Your task to perform on an android device: all mails in gmail Image 0: 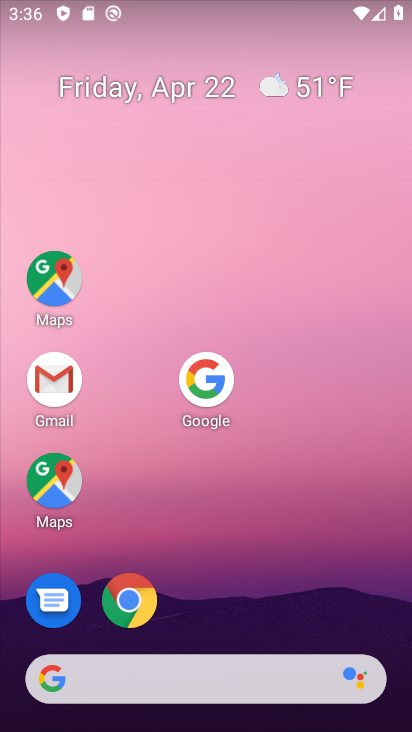
Step 0: drag from (304, 669) to (194, 270)
Your task to perform on an android device: all mails in gmail Image 1: 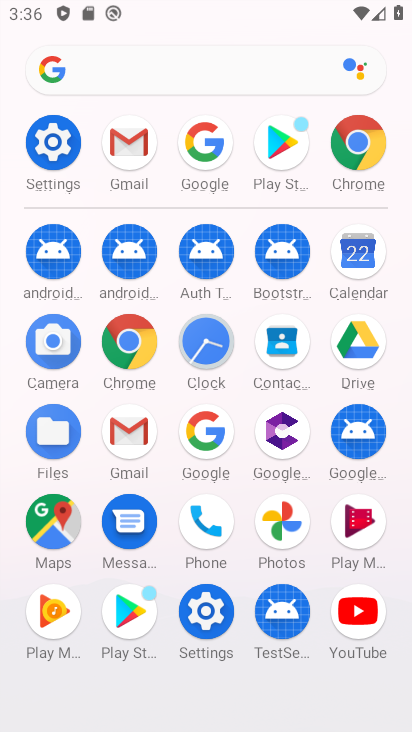
Step 1: click (128, 447)
Your task to perform on an android device: all mails in gmail Image 2: 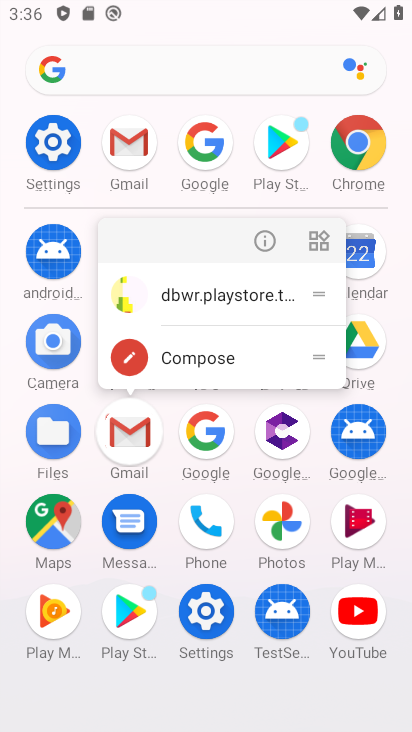
Step 2: click (128, 447)
Your task to perform on an android device: all mails in gmail Image 3: 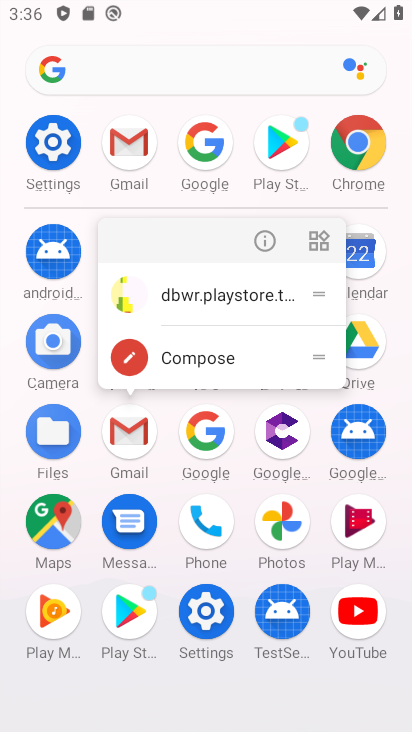
Step 3: click (123, 425)
Your task to perform on an android device: all mails in gmail Image 4: 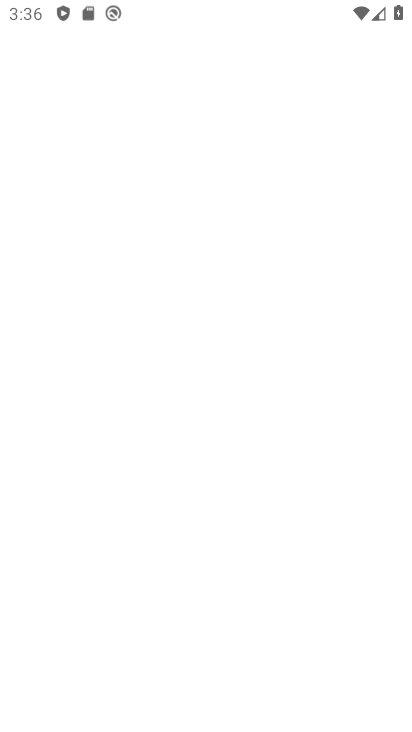
Step 4: click (123, 423)
Your task to perform on an android device: all mails in gmail Image 5: 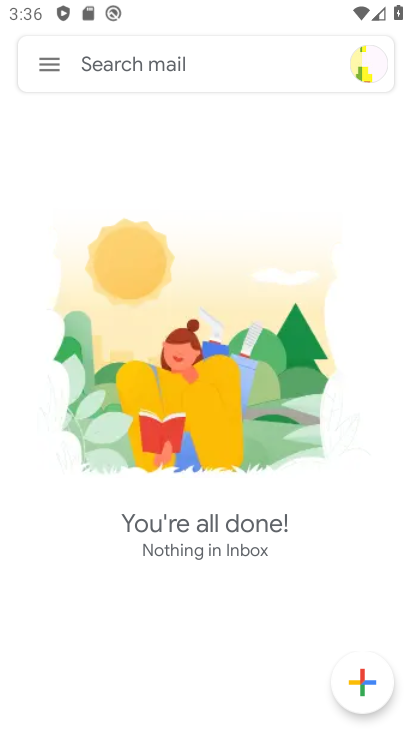
Step 5: drag from (46, 65) to (35, 233)
Your task to perform on an android device: all mails in gmail Image 6: 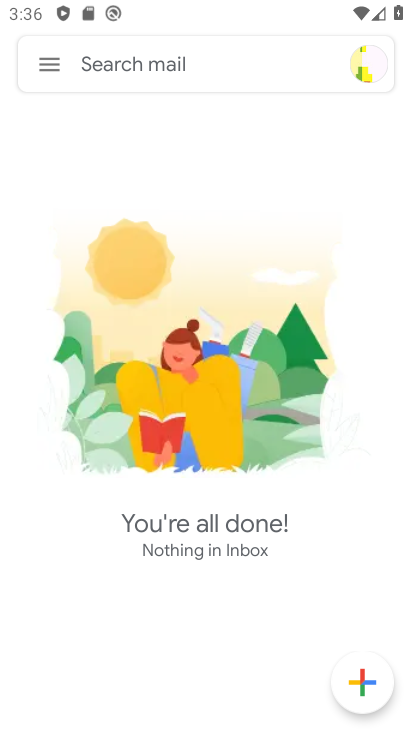
Step 6: drag from (49, 63) to (49, 248)
Your task to perform on an android device: all mails in gmail Image 7: 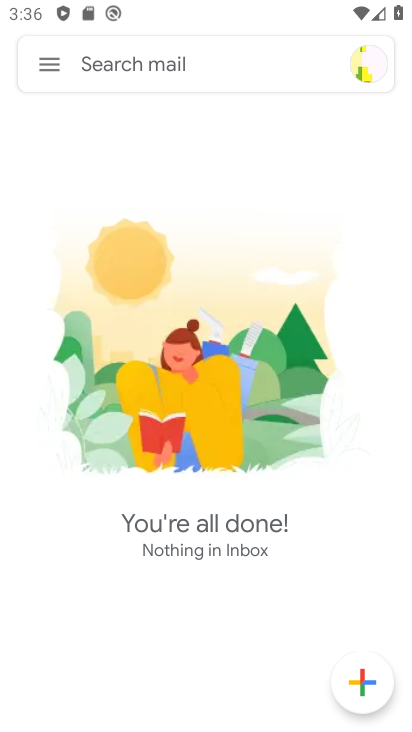
Step 7: click (46, 58)
Your task to perform on an android device: all mails in gmail Image 8: 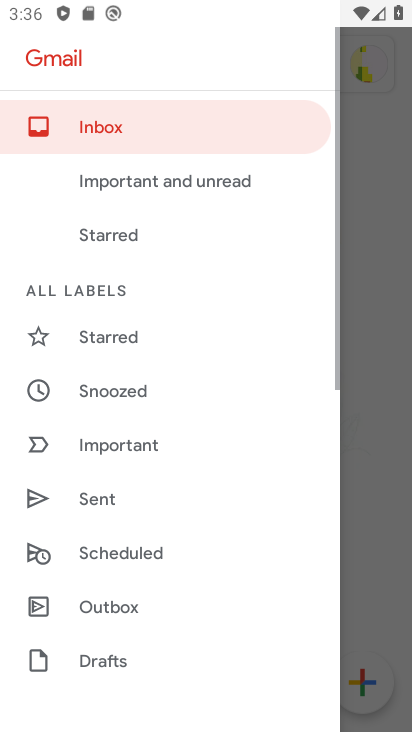
Step 8: click (46, 61)
Your task to perform on an android device: all mails in gmail Image 9: 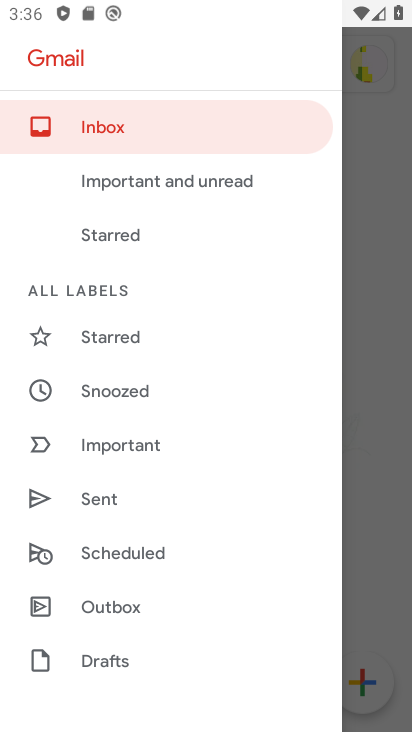
Step 9: drag from (156, 544) to (94, 303)
Your task to perform on an android device: all mails in gmail Image 10: 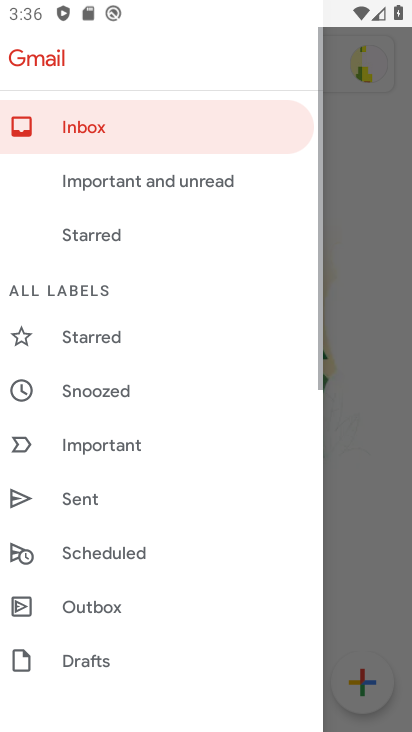
Step 10: drag from (138, 530) to (153, 298)
Your task to perform on an android device: all mails in gmail Image 11: 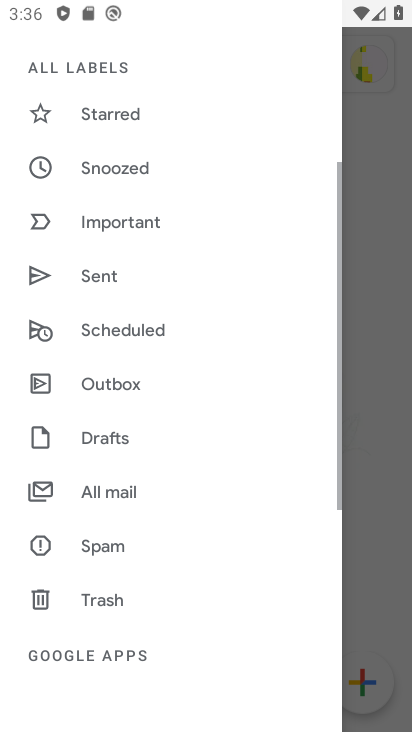
Step 11: drag from (114, 593) to (74, 296)
Your task to perform on an android device: all mails in gmail Image 12: 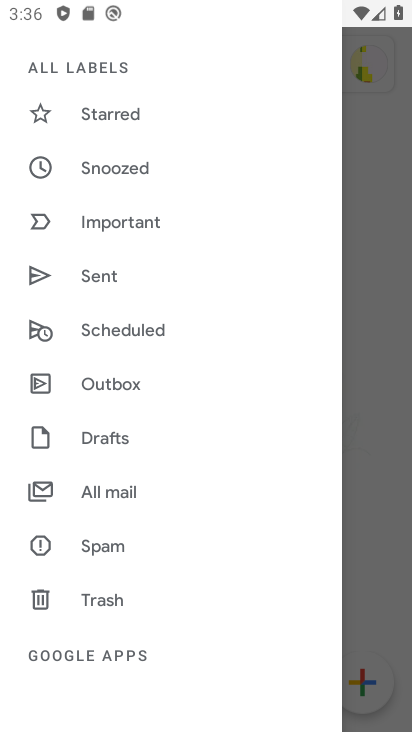
Step 12: click (100, 487)
Your task to perform on an android device: all mails in gmail Image 13: 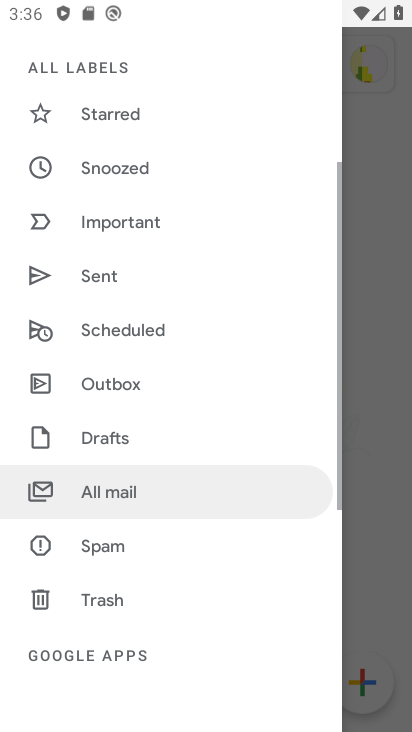
Step 13: click (100, 487)
Your task to perform on an android device: all mails in gmail Image 14: 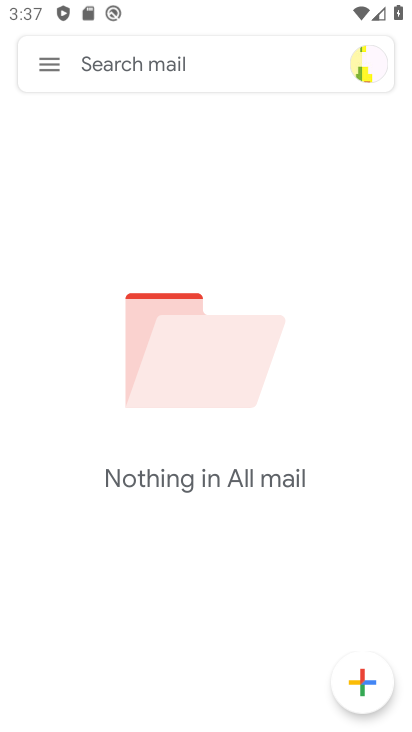
Step 14: task complete